Your task to perform on an android device: turn on translation in the chrome app Image 0: 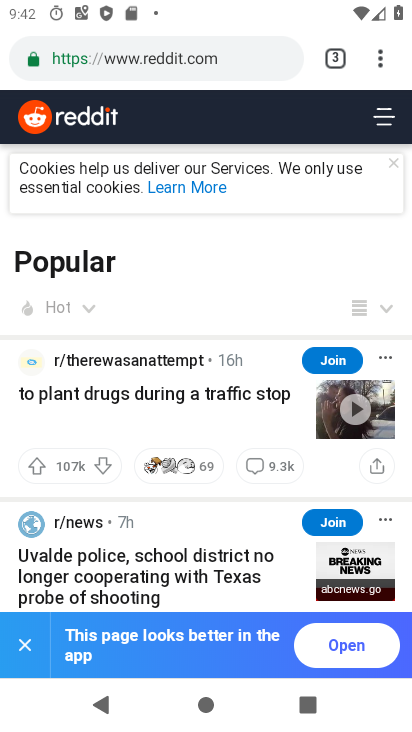
Step 0: click (378, 62)
Your task to perform on an android device: turn on translation in the chrome app Image 1: 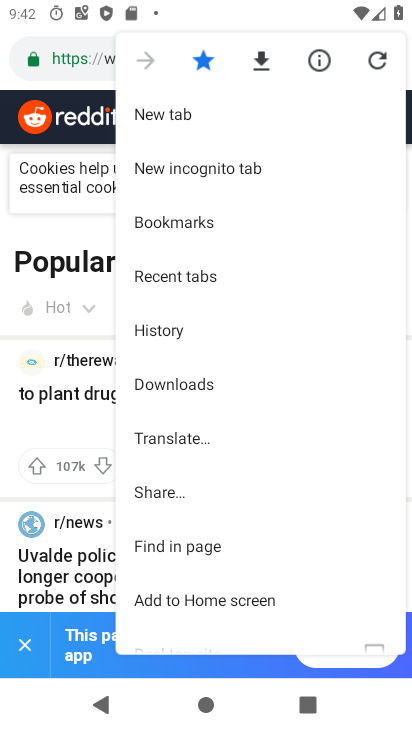
Step 1: drag from (245, 540) to (209, 227)
Your task to perform on an android device: turn on translation in the chrome app Image 2: 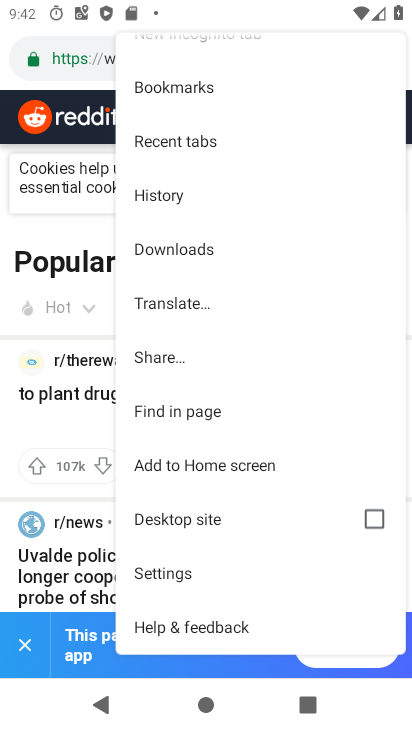
Step 2: click (156, 572)
Your task to perform on an android device: turn on translation in the chrome app Image 3: 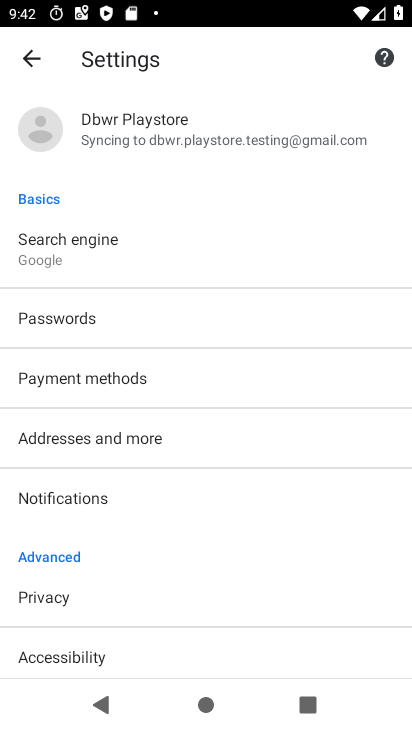
Step 3: drag from (195, 578) to (206, 285)
Your task to perform on an android device: turn on translation in the chrome app Image 4: 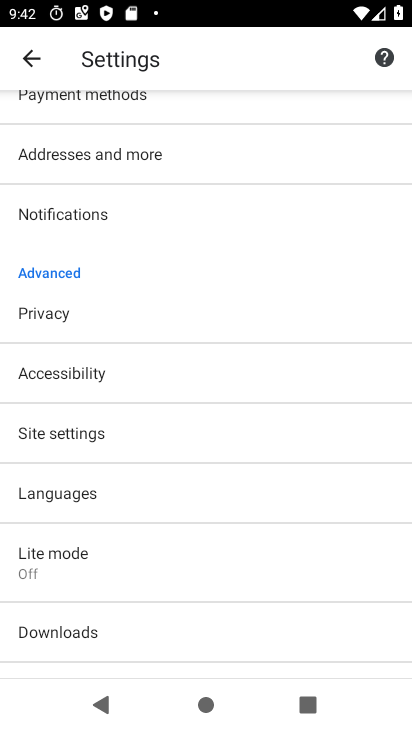
Step 4: click (75, 489)
Your task to perform on an android device: turn on translation in the chrome app Image 5: 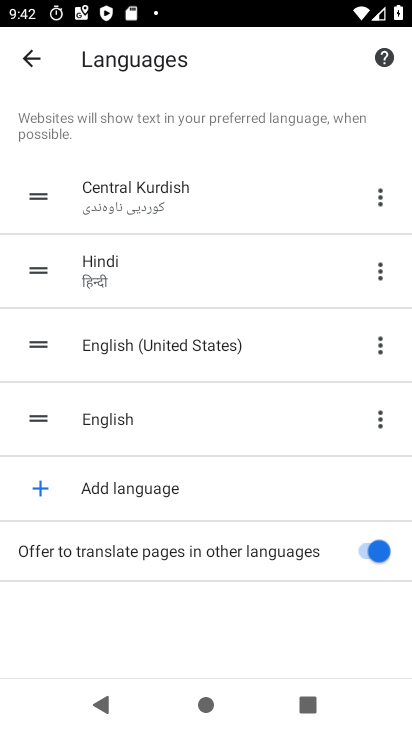
Step 5: task complete